Your task to perform on an android device: Is it going to rain tomorrow? Image 0: 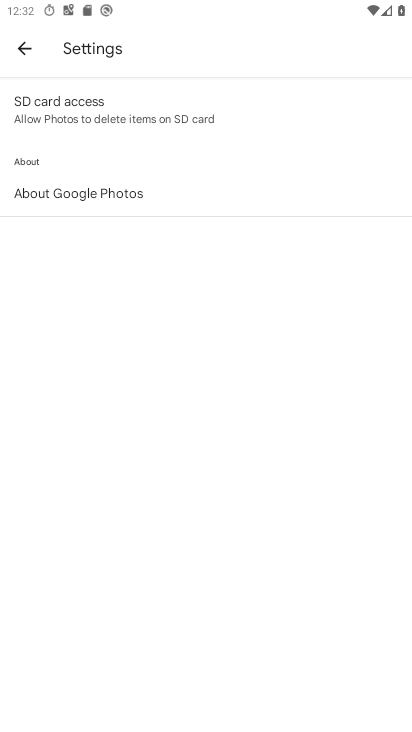
Step 0: click (137, 395)
Your task to perform on an android device: Is it going to rain tomorrow? Image 1: 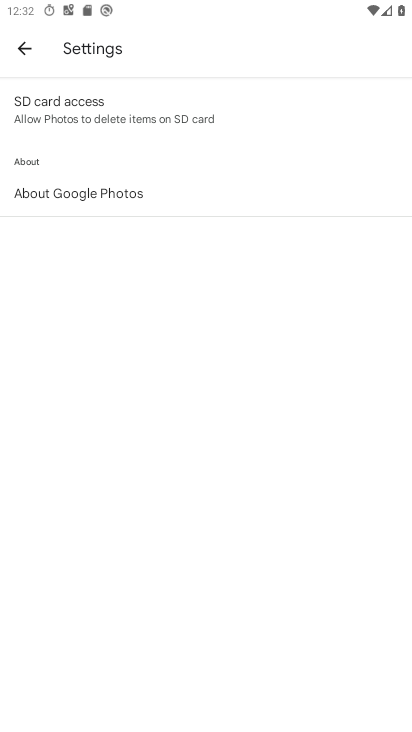
Step 1: press home button
Your task to perform on an android device: Is it going to rain tomorrow? Image 2: 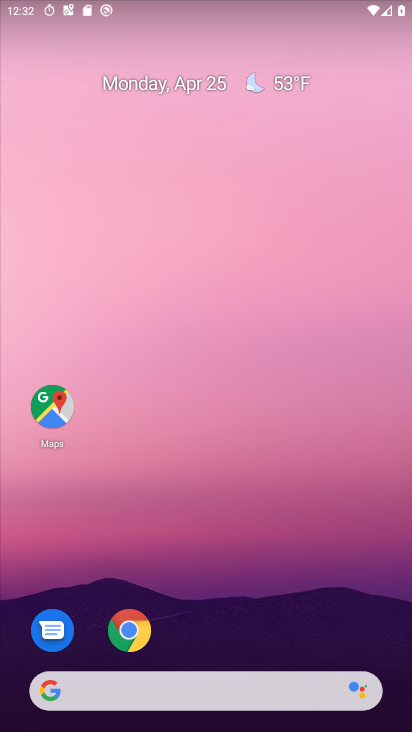
Step 2: drag from (193, 626) to (289, 169)
Your task to perform on an android device: Is it going to rain tomorrow? Image 3: 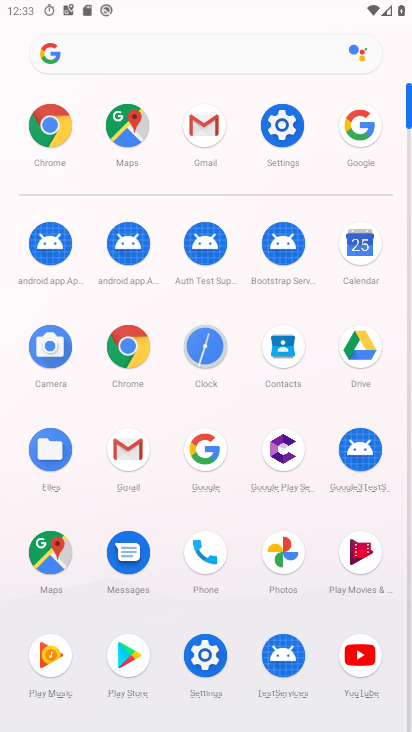
Step 3: click (203, 448)
Your task to perform on an android device: Is it going to rain tomorrow? Image 4: 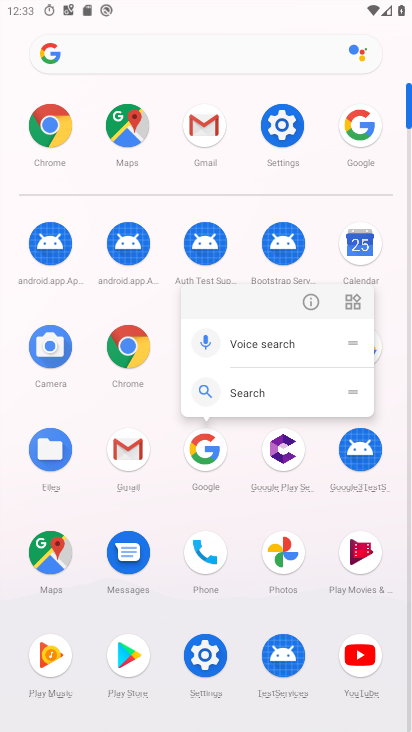
Step 4: click (310, 303)
Your task to perform on an android device: Is it going to rain tomorrow? Image 5: 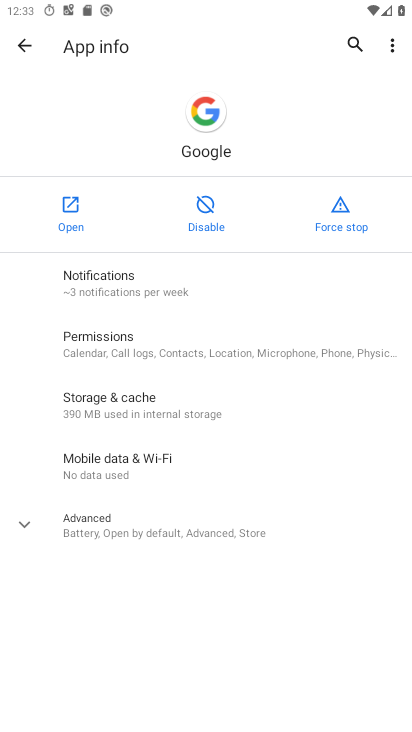
Step 5: click (73, 209)
Your task to perform on an android device: Is it going to rain tomorrow? Image 6: 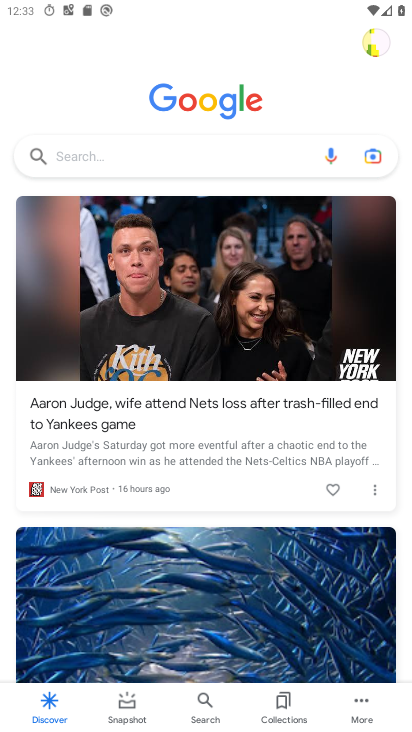
Step 6: click (120, 155)
Your task to perform on an android device: Is it going to rain tomorrow? Image 7: 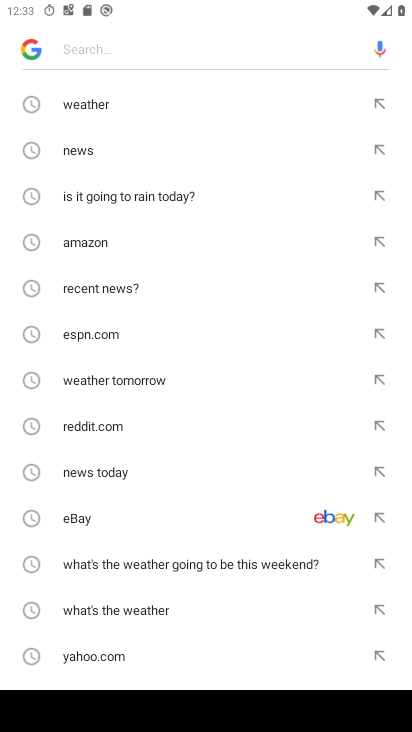
Step 7: drag from (158, 632) to (230, 242)
Your task to perform on an android device: Is it going to rain tomorrow? Image 8: 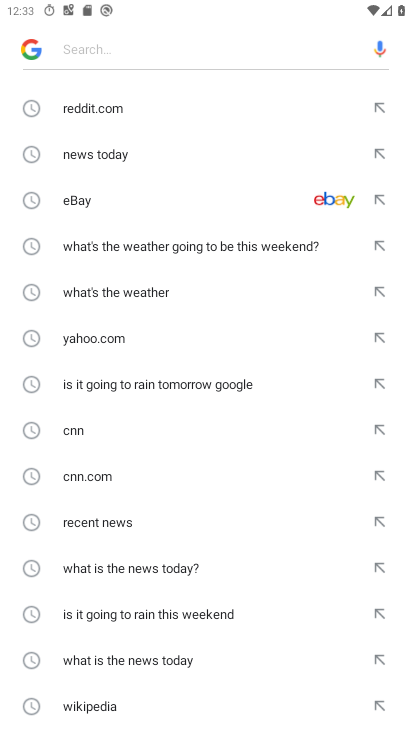
Step 8: click (201, 384)
Your task to perform on an android device: Is it going to rain tomorrow? Image 9: 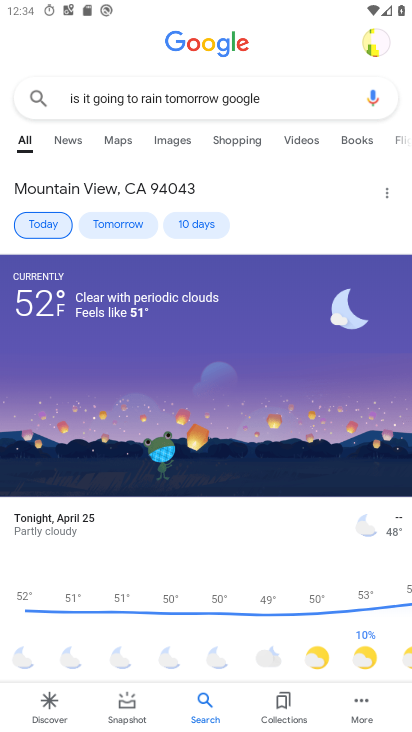
Step 9: task complete